Your task to perform on an android device: turn off location Image 0: 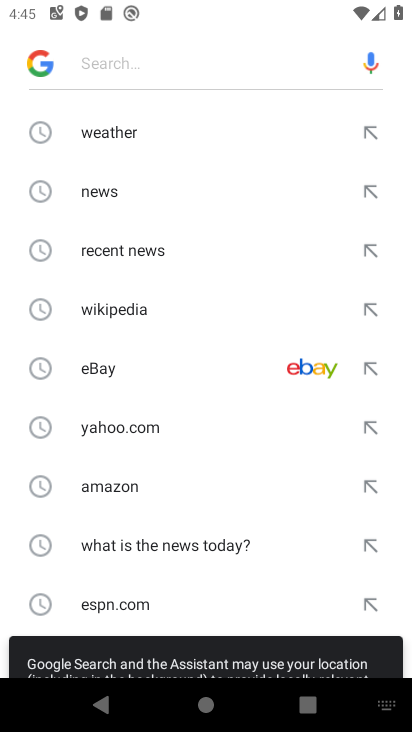
Step 0: press home button
Your task to perform on an android device: turn off location Image 1: 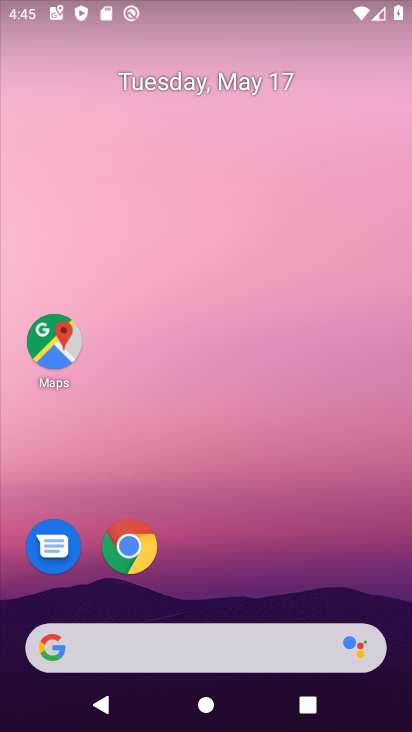
Step 1: click (305, 74)
Your task to perform on an android device: turn off location Image 2: 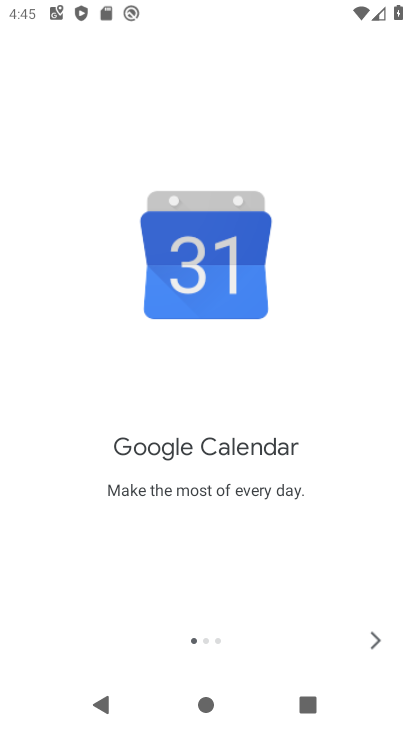
Step 2: drag from (210, 436) to (251, 7)
Your task to perform on an android device: turn off location Image 3: 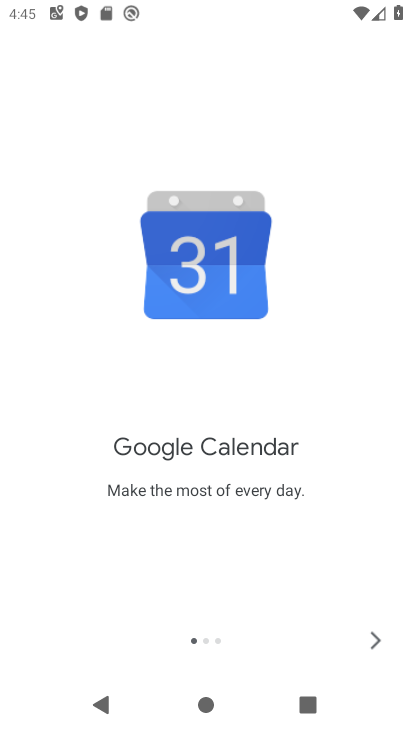
Step 3: press home button
Your task to perform on an android device: turn off location Image 4: 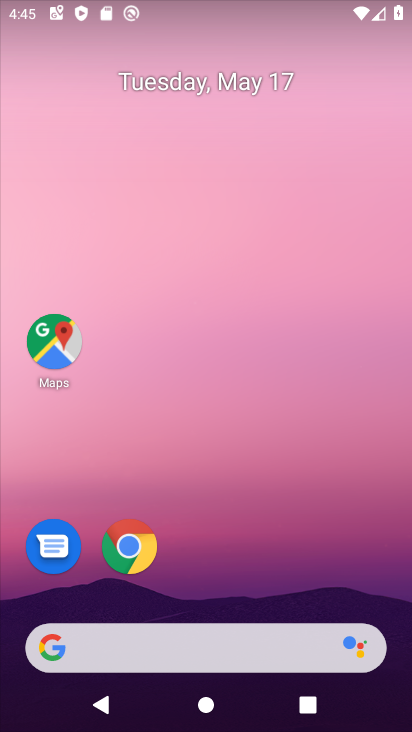
Step 4: drag from (202, 573) to (196, 82)
Your task to perform on an android device: turn off location Image 5: 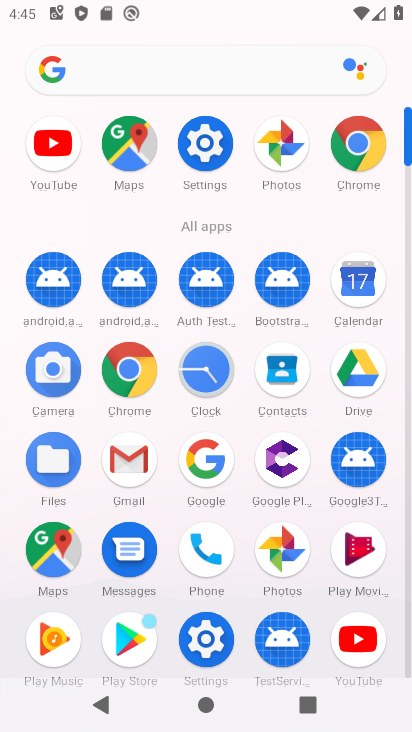
Step 5: click (202, 159)
Your task to perform on an android device: turn off location Image 6: 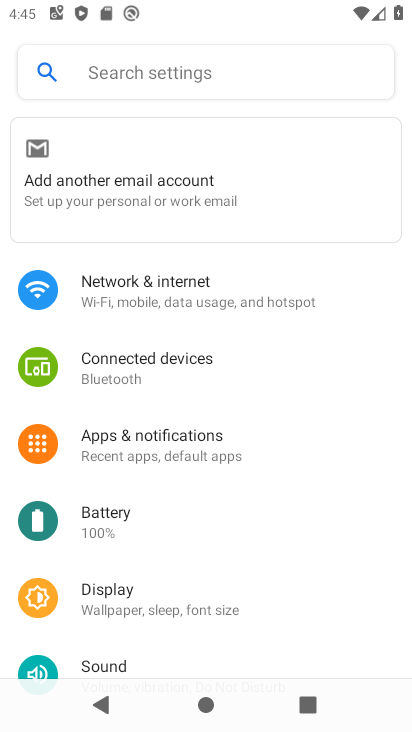
Step 6: drag from (154, 614) to (237, 242)
Your task to perform on an android device: turn off location Image 7: 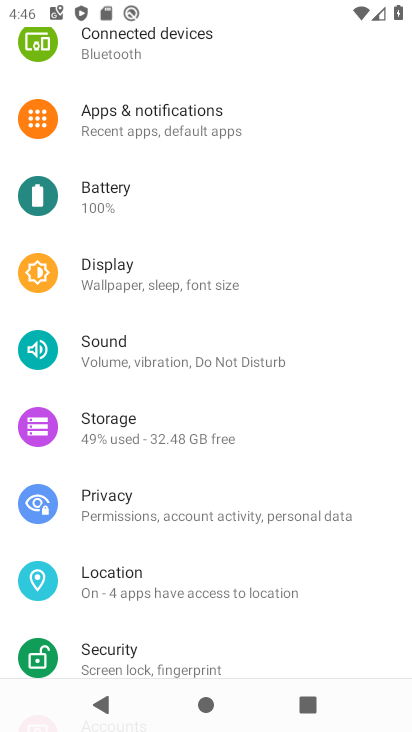
Step 7: click (120, 577)
Your task to perform on an android device: turn off location Image 8: 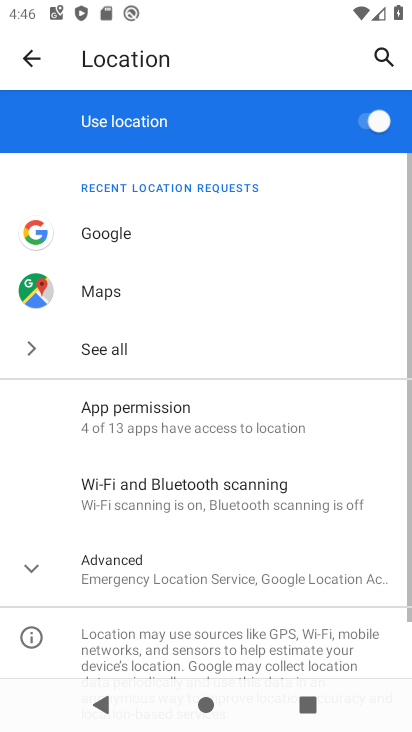
Step 8: click (366, 124)
Your task to perform on an android device: turn off location Image 9: 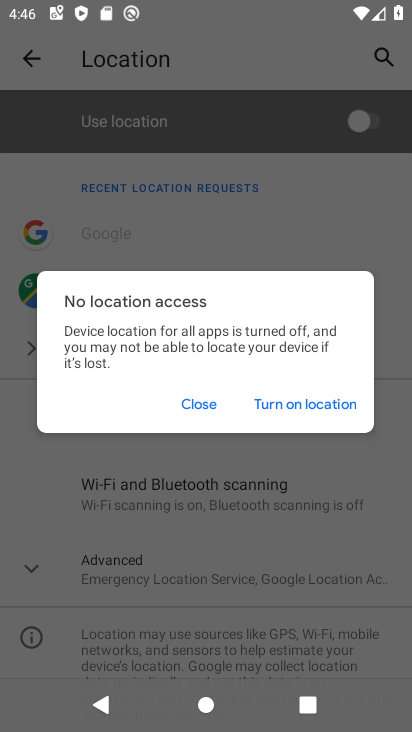
Step 9: task complete